Your task to perform on an android device: choose inbox layout in the gmail app Image 0: 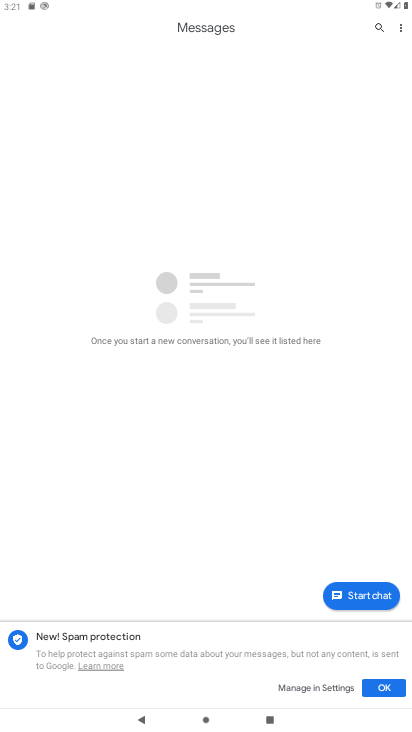
Step 0: press back button
Your task to perform on an android device: choose inbox layout in the gmail app Image 1: 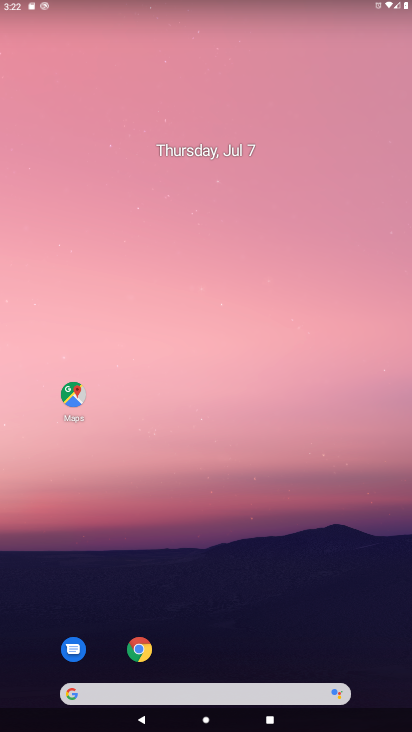
Step 1: drag from (228, 553) to (213, 69)
Your task to perform on an android device: choose inbox layout in the gmail app Image 2: 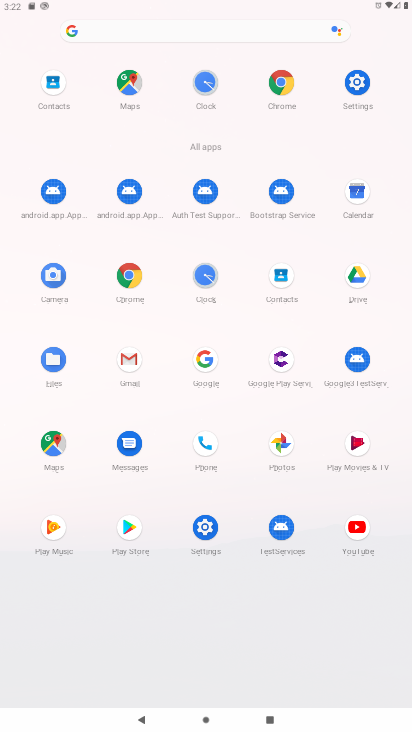
Step 2: click (136, 361)
Your task to perform on an android device: choose inbox layout in the gmail app Image 3: 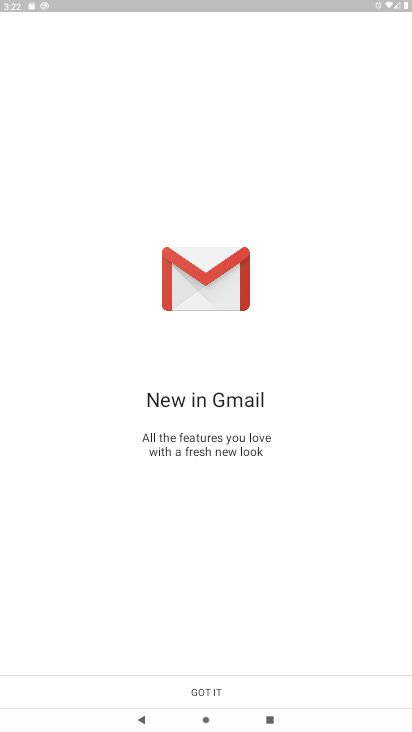
Step 3: click (179, 684)
Your task to perform on an android device: choose inbox layout in the gmail app Image 4: 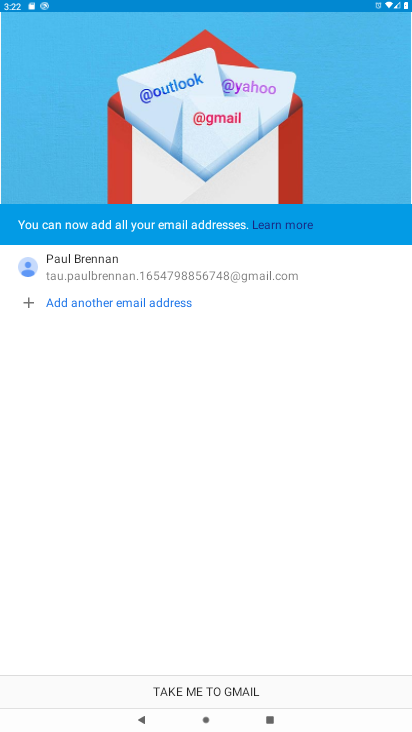
Step 4: click (185, 691)
Your task to perform on an android device: choose inbox layout in the gmail app Image 5: 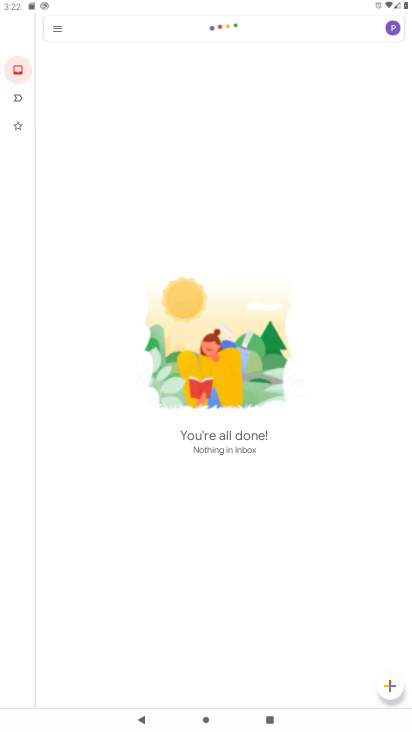
Step 5: click (53, 27)
Your task to perform on an android device: choose inbox layout in the gmail app Image 6: 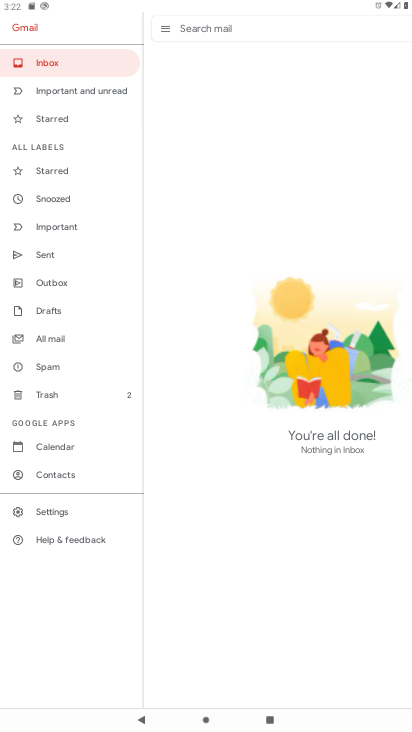
Step 6: click (63, 506)
Your task to perform on an android device: choose inbox layout in the gmail app Image 7: 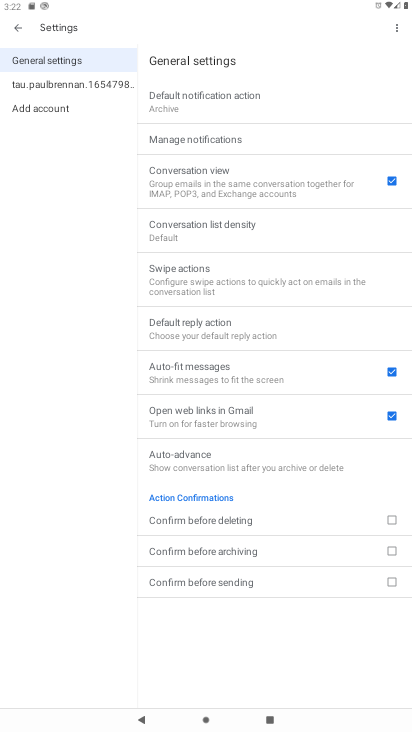
Step 7: click (73, 79)
Your task to perform on an android device: choose inbox layout in the gmail app Image 8: 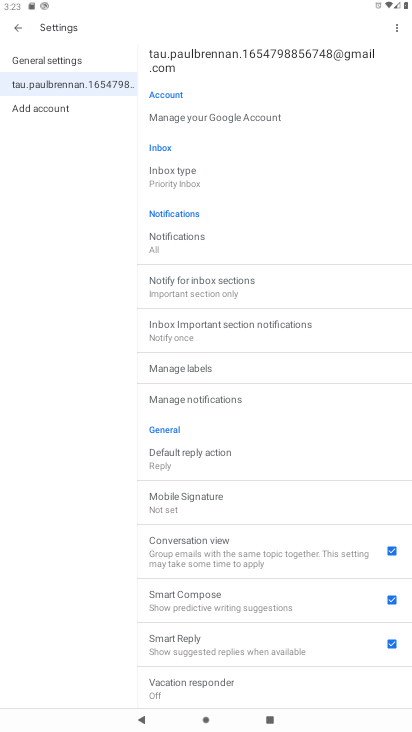
Step 8: click (184, 175)
Your task to perform on an android device: choose inbox layout in the gmail app Image 9: 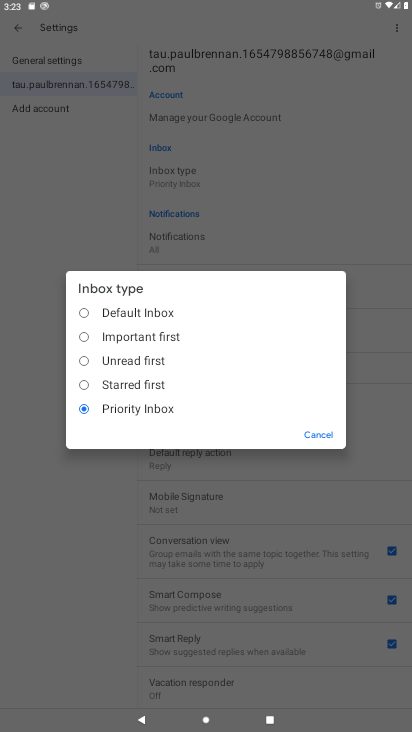
Step 9: click (81, 319)
Your task to perform on an android device: choose inbox layout in the gmail app Image 10: 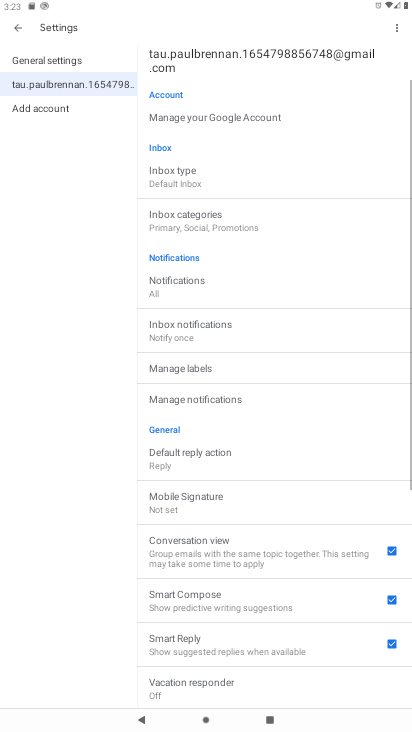
Step 10: task complete